Your task to perform on an android device: Open maps Image 0: 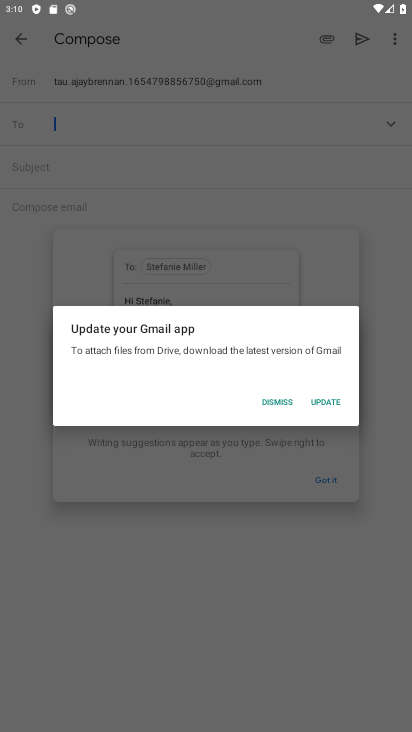
Step 0: press home button
Your task to perform on an android device: Open maps Image 1: 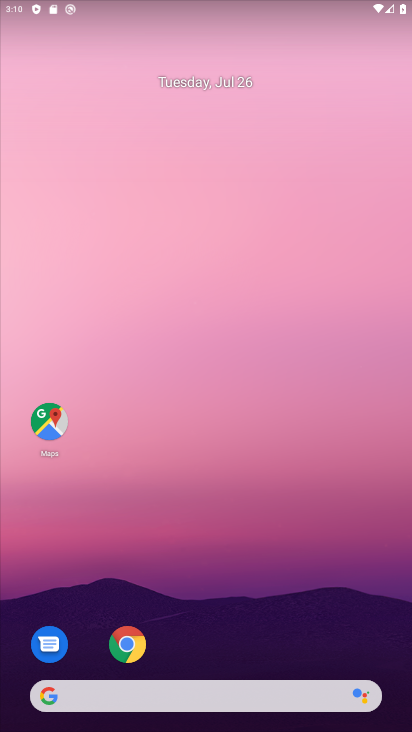
Step 1: click (40, 423)
Your task to perform on an android device: Open maps Image 2: 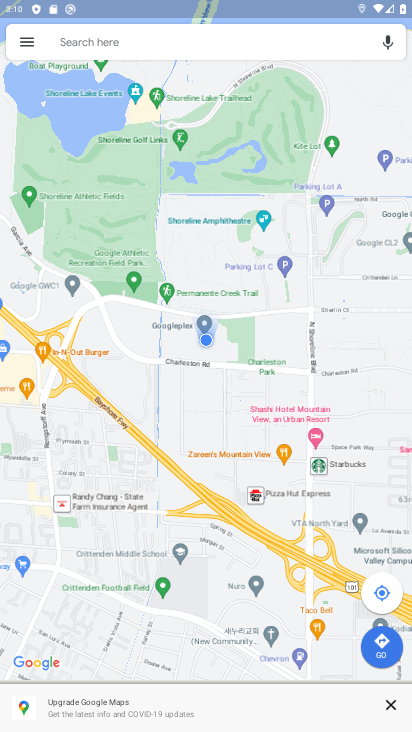
Step 2: task complete